Your task to perform on an android device: set the timer Image 0: 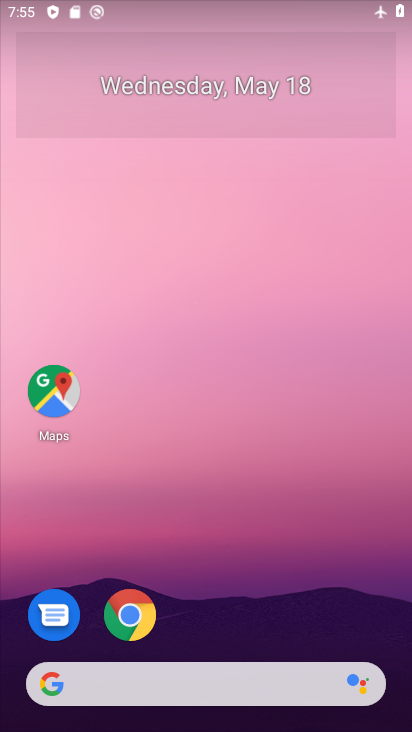
Step 0: drag from (287, 603) to (372, 84)
Your task to perform on an android device: set the timer Image 1: 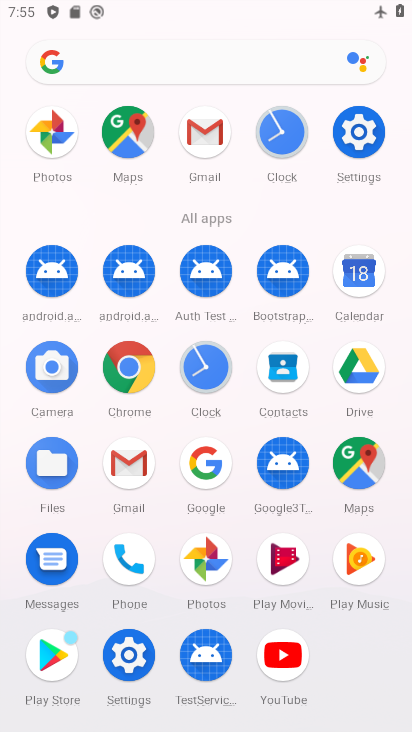
Step 1: click (285, 141)
Your task to perform on an android device: set the timer Image 2: 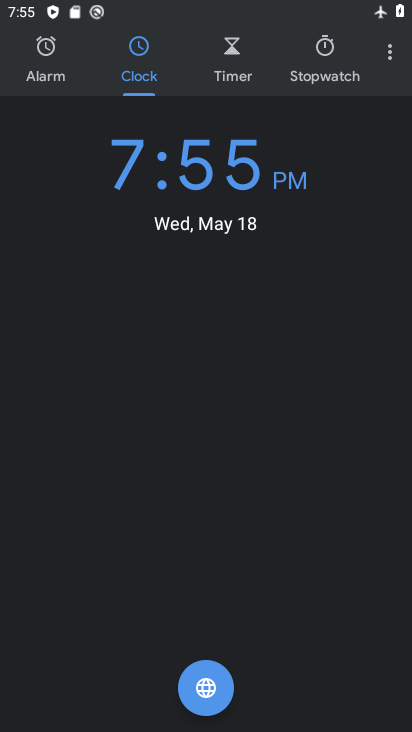
Step 2: click (222, 43)
Your task to perform on an android device: set the timer Image 3: 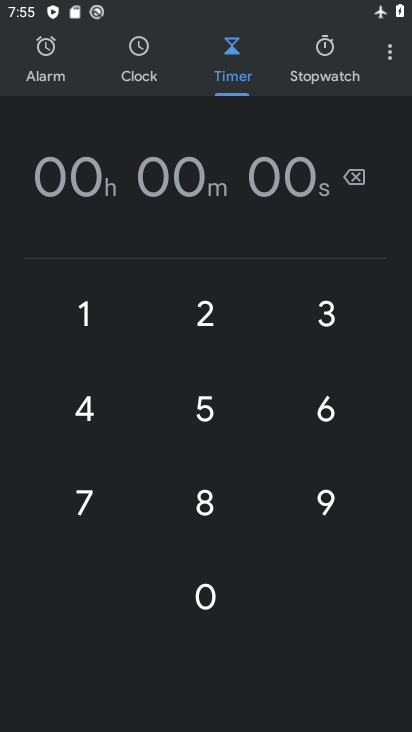
Step 3: click (93, 312)
Your task to perform on an android device: set the timer Image 4: 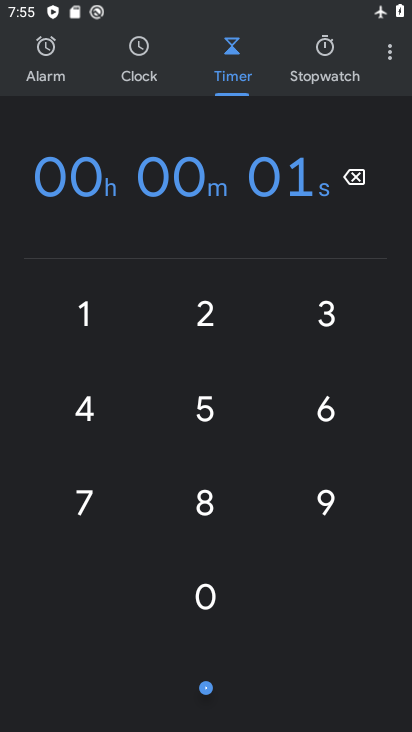
Step 4: click (204, 320)
Your task to perform on an android device: set the timer Image 5: 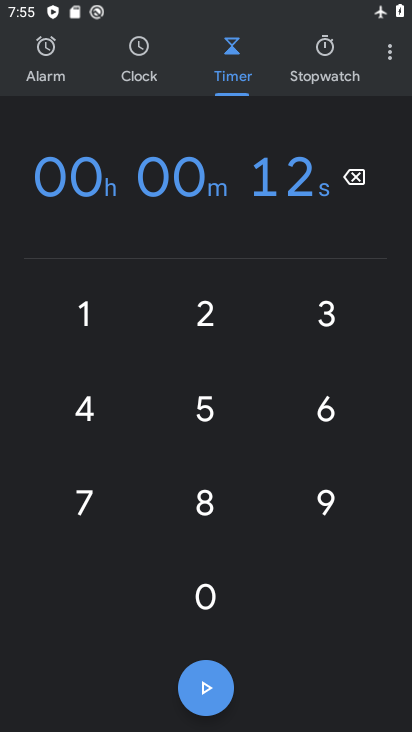
Step 5: click (214, 403)
Your task to perform on an android device: set the timer Image 6: 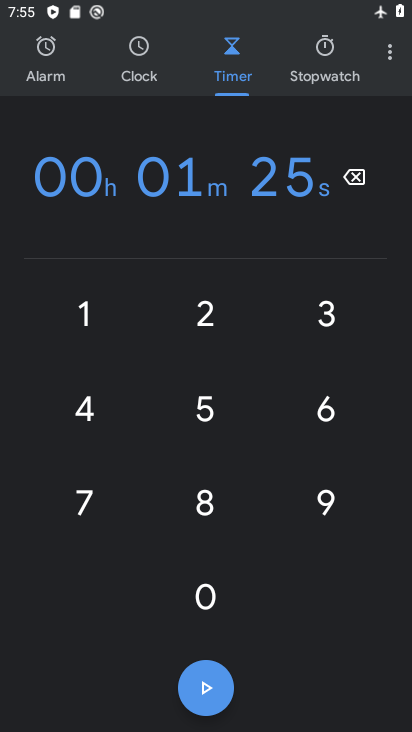
Step 6: click (321, 317)
Your task to perform on an android device: set the timer Image 7: 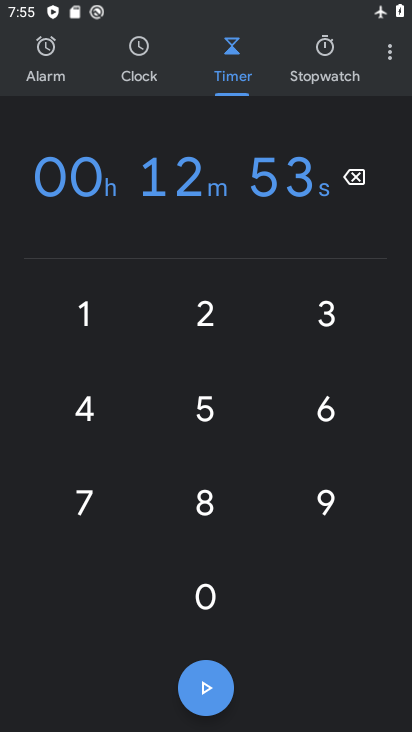
Step 7: click (324, 410)
Your task to perform on an android device: set the timer Image 8: 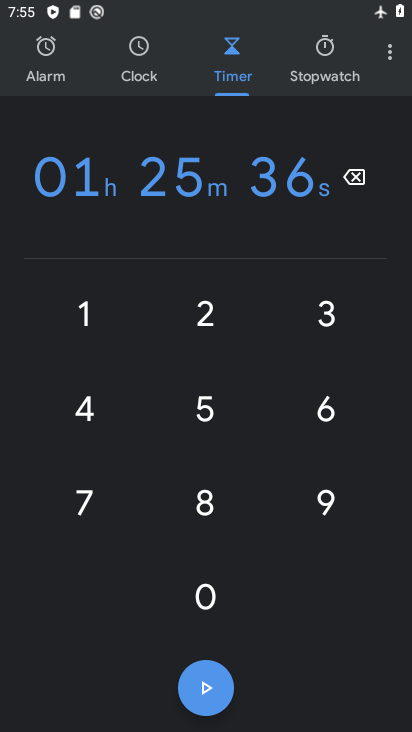
Step 8: click (210, 695)
Your task to perform on an android device: set the timer Image 9: 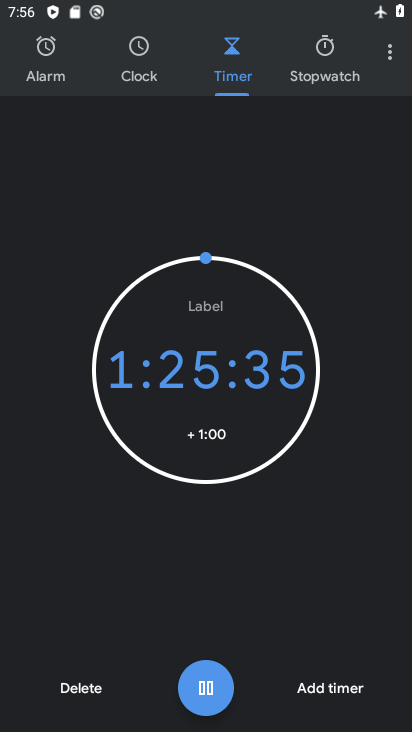
Step 9: task complete